Your task to perform on an android device: change notifications settings Image 0: 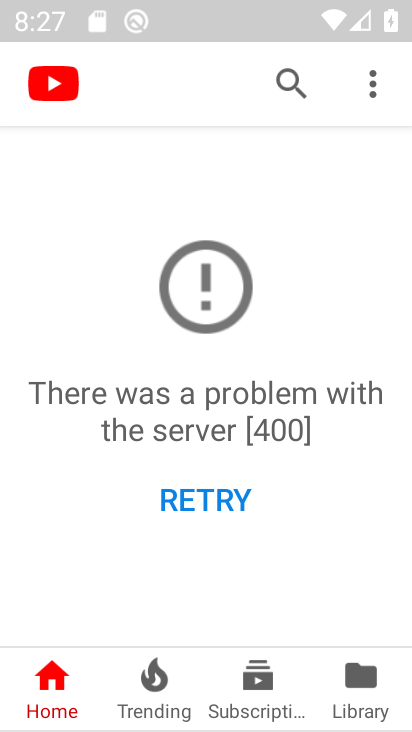
Step 0: press home button
Your task to perform on an android device: change notifications settings Image 1: 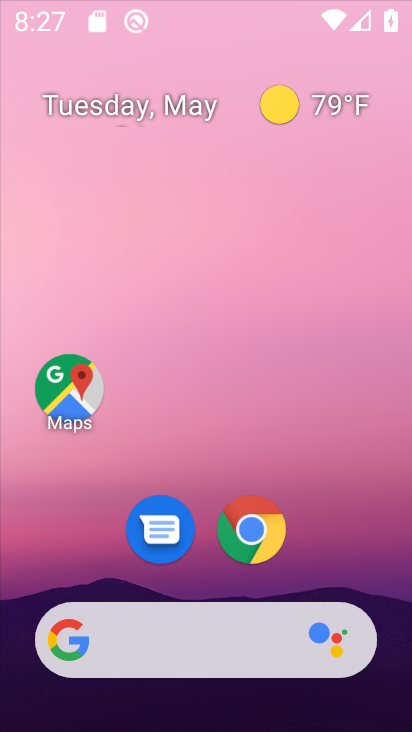
Step 1: drag from (337, 551) to (293, 101)
Your task to perform on an android device: change notifications settings Image 2: 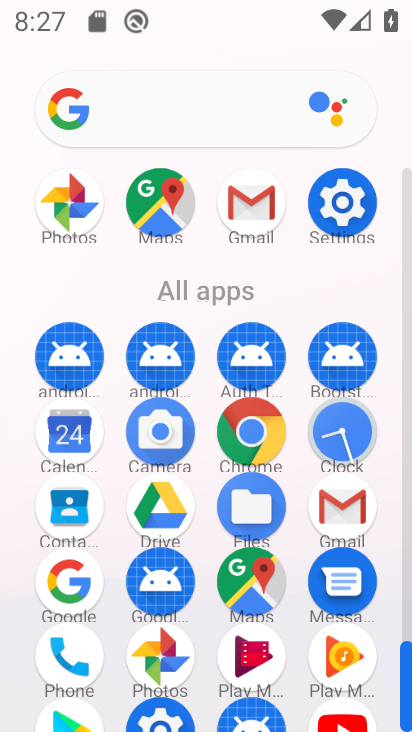
Step 2: click (341, 196)
Your task to perform on an android device: change notifications settings Image 3: 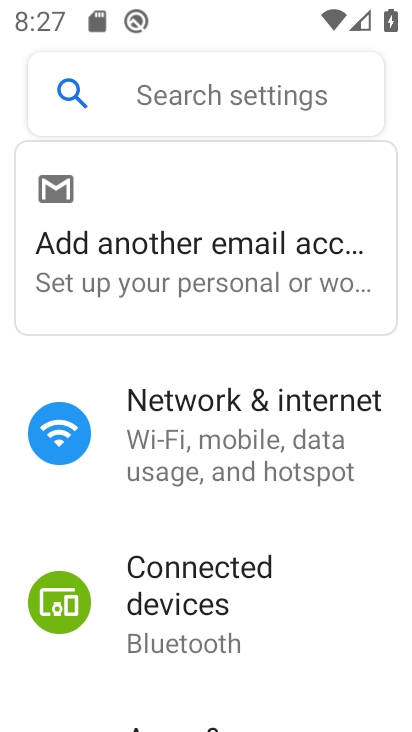
Step 3: drag from (267, 600) to (305, 466)
Your task to perform on an android device: change notifications settings Image 4: 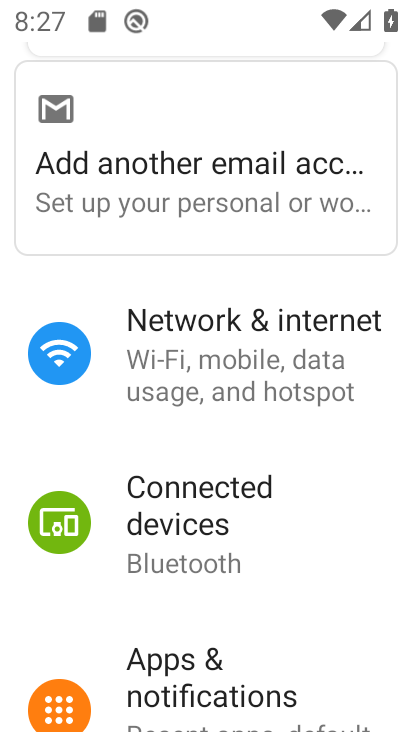
Step 4: click (222, 679)
Your task to perform on an android device: change notifications settings Image 5: 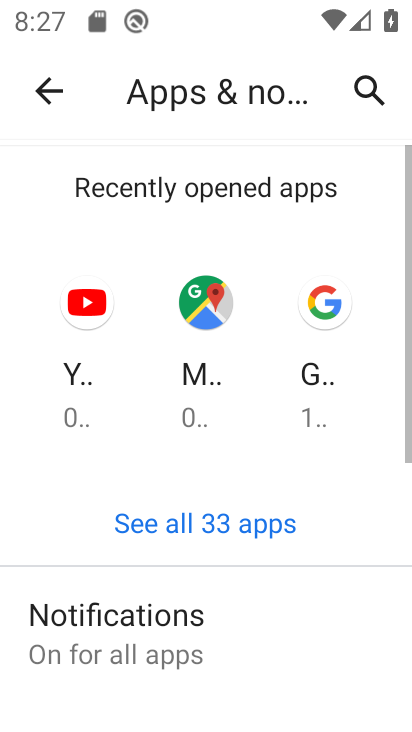
Step 5: drag from (254, 645) to (300, 126)
Your task to perform on an android device: change notifications settings Image 6: 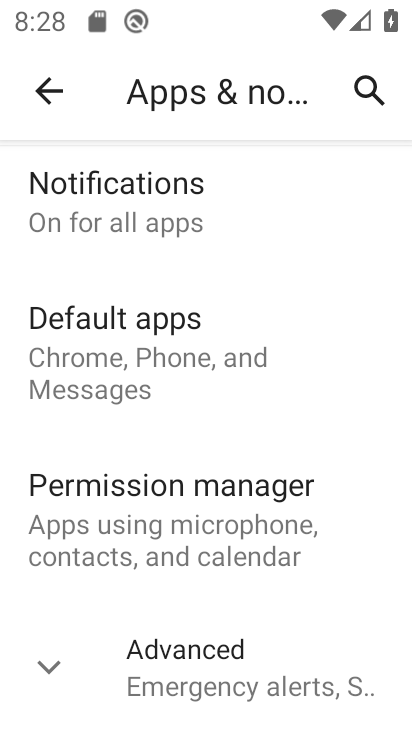
Step 6: click (164, 210)
Your task to perform on an android device: change notifications settings Image 7: 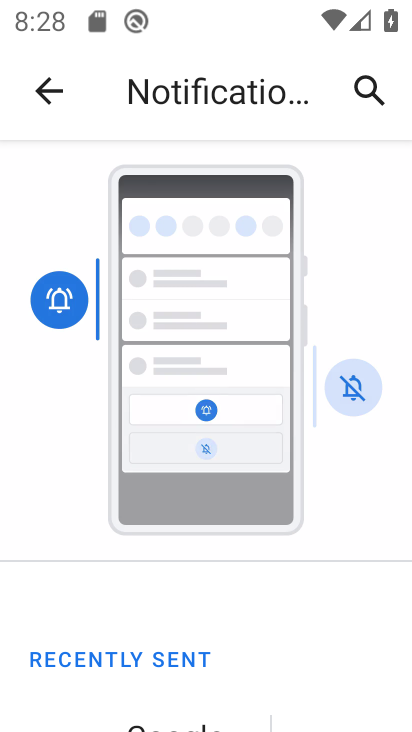
Step 7: task complete